Your task to perform on an android device: turn off location history Image 0: 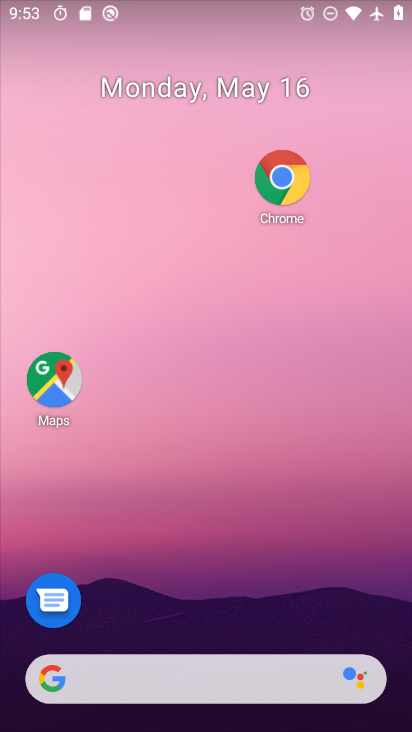
Step 0: drag from (236, 671) to (341, 212)
Your task to perform on an android device: turn off location history Image 1: 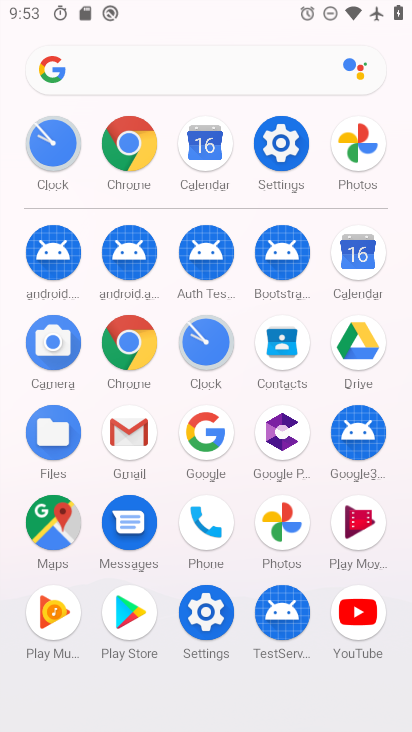
Step 1: click (290, 133)
Your task to perform on an android device: turn off location history Image 2: 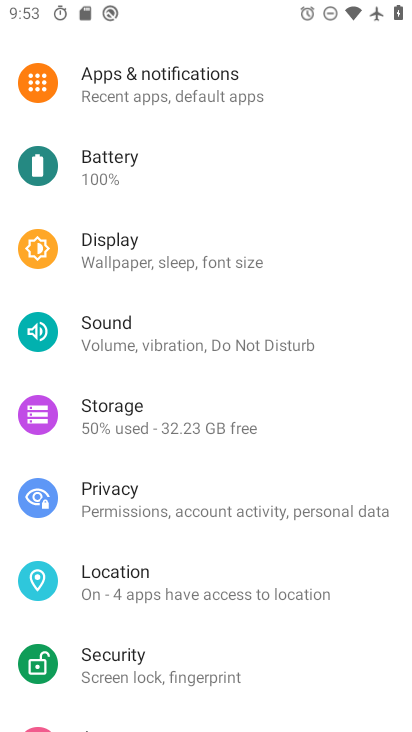
Step 2: click (196, 587)
Your task to perform on an android device: turn off location history Image 3: 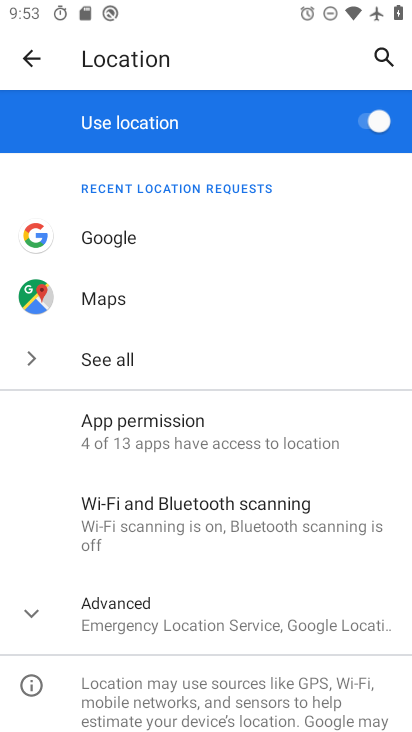
Step 3: drag from (243, 655) to (270, 294)
Your task to perform on an android device: turn off location history Image 4: 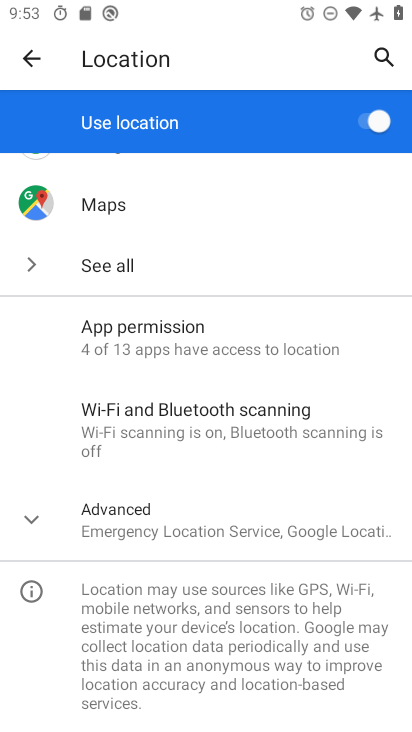
Step 4: click (150, 536)
Your task to perform on an android device: turn off location history Image 5: 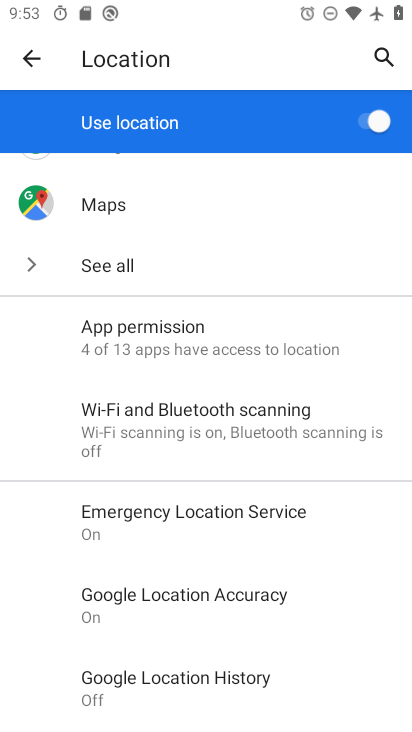
Step 5: click (224, 678)
Your task to perform on an android device: turn off location history Image 6: 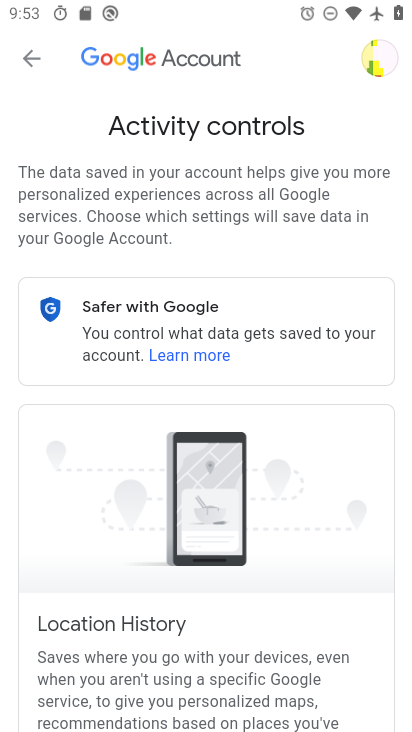
Step 6: task complete